Your task to perform on an android device: Go to Yahoo.com Image 0: 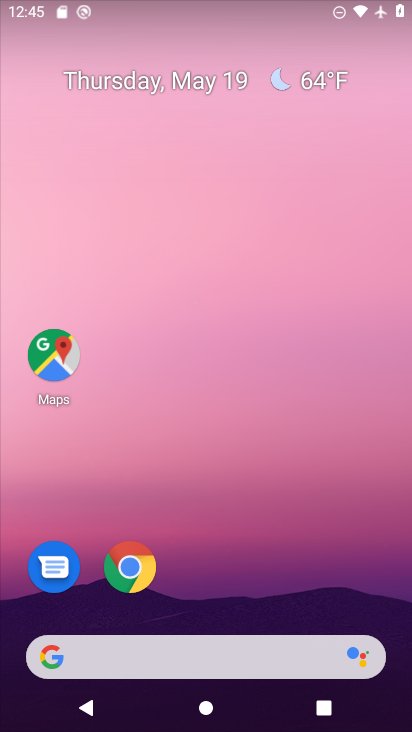
Step 0: drag from (205, 571) to (218, 130)
Your task to perform on an android device: Go to Yahoo.com Image 1: 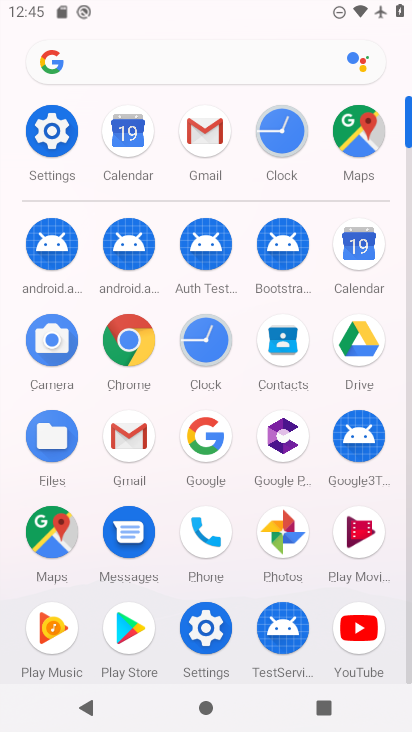
Step 1: click (200, 455)
Your task to perform on an android device: Go to Yahoo.com Image 2: 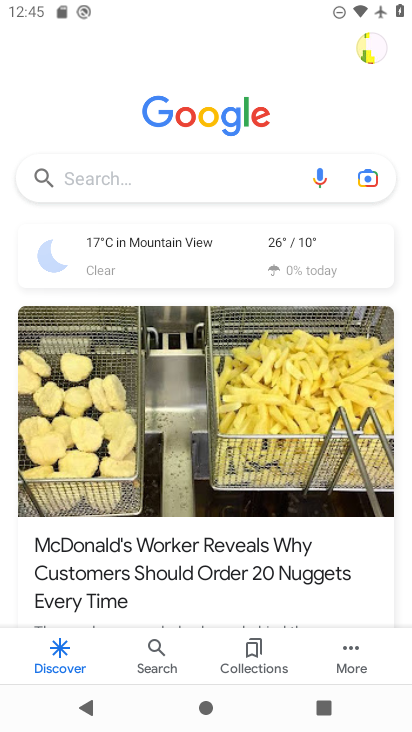
Step 2: click (198, 170)
Your task to perform on an android device: Go to Yahoo.com Image 3: 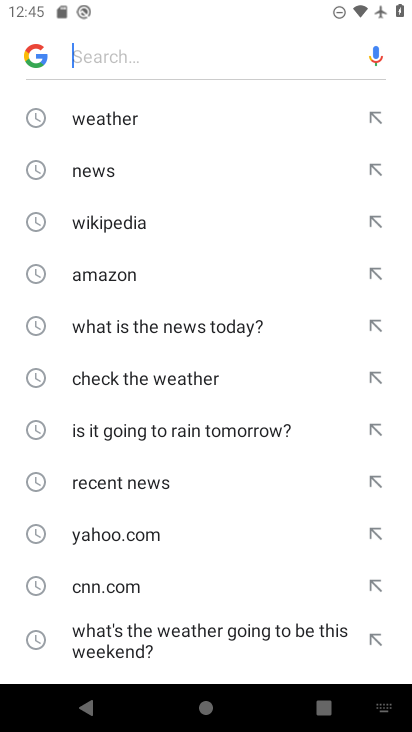
Step 3: click (129, 533)
Your task to perform on an android device: Go to Yahoo.com Image 4: 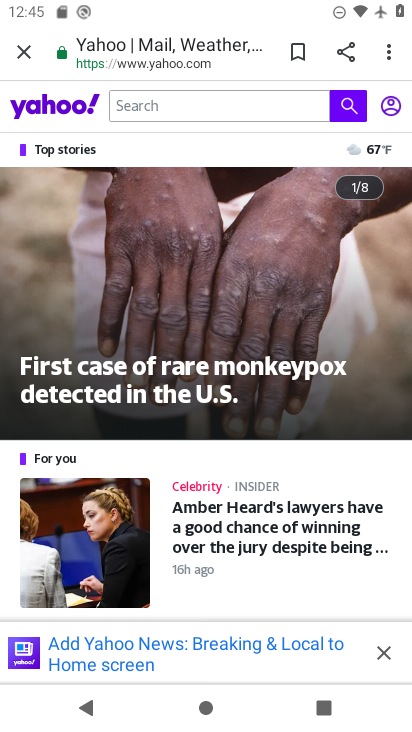
Step 4: task complete